Your task to perform on an android device: Open Amazon Image 0: 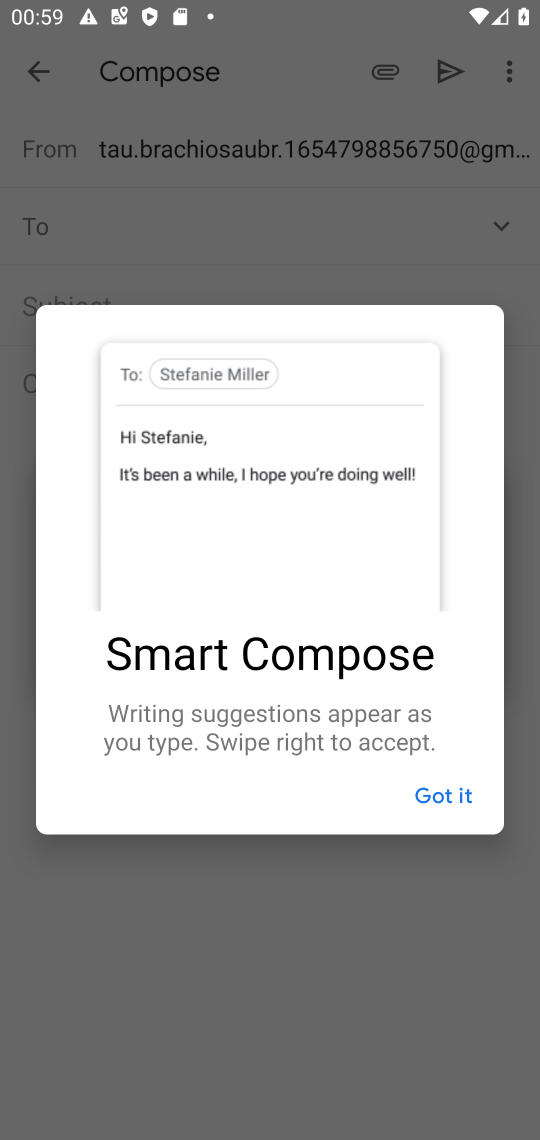
Step 0: press home button
Your task to perform on an android device: Open Amazon Image 1: 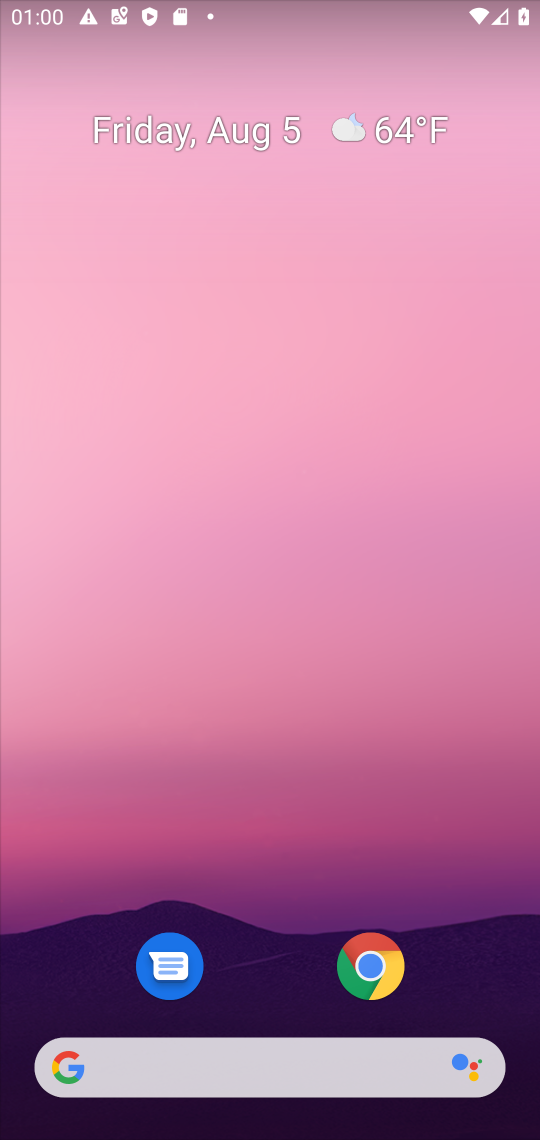
Step 1: drag from (269, 966) to (373, 41)
Your task to perform on an android device: Open Amazon Image 2: 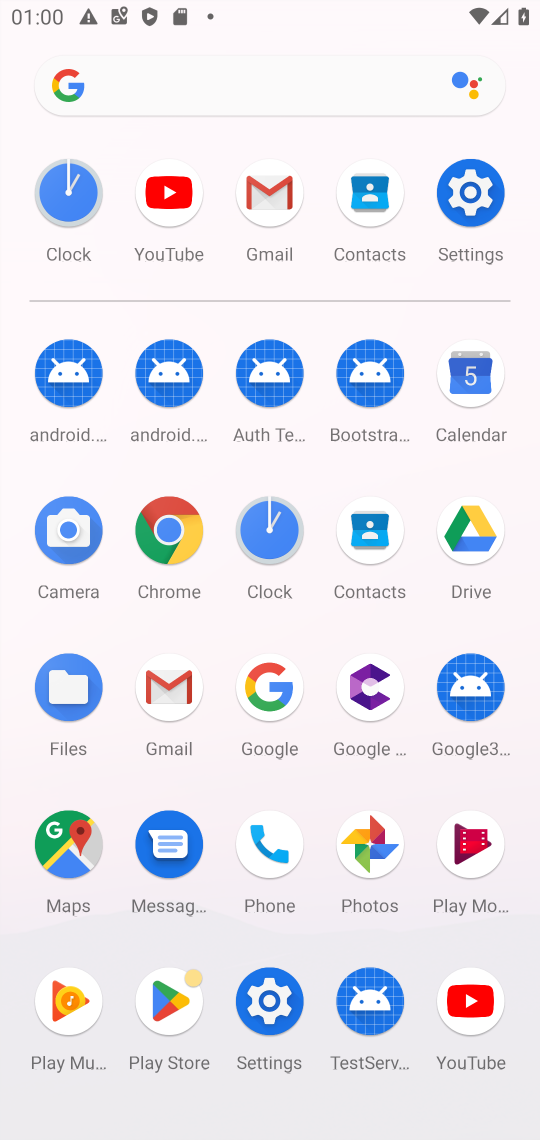
Step 2: click (176, 534)
Your task to perform on an android device: Open Amazon Image 3: 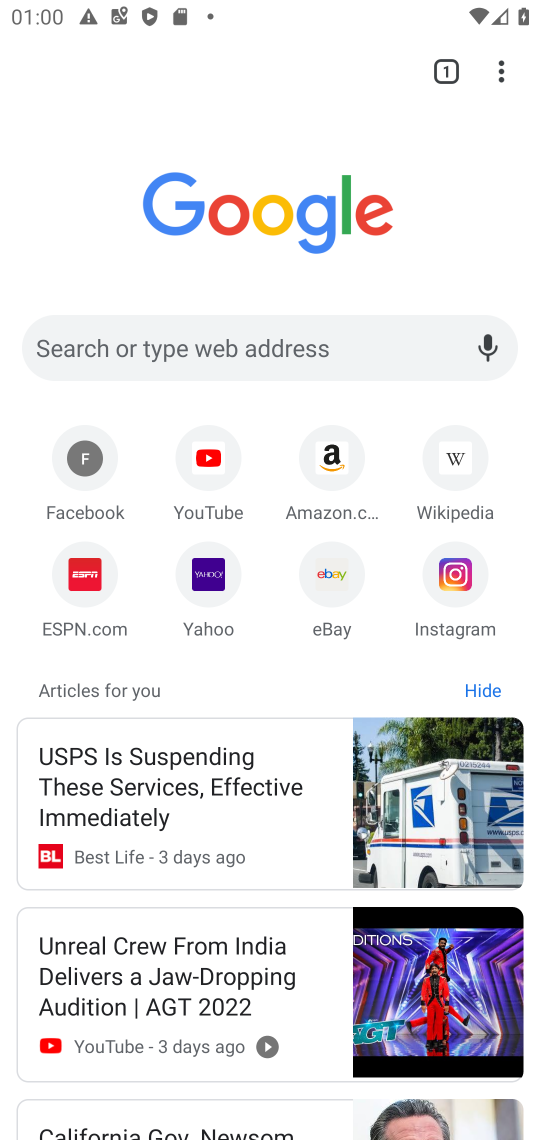
Step 3: click (337, 456)
Your task to perform on an android device: Open Amazon Image 4: 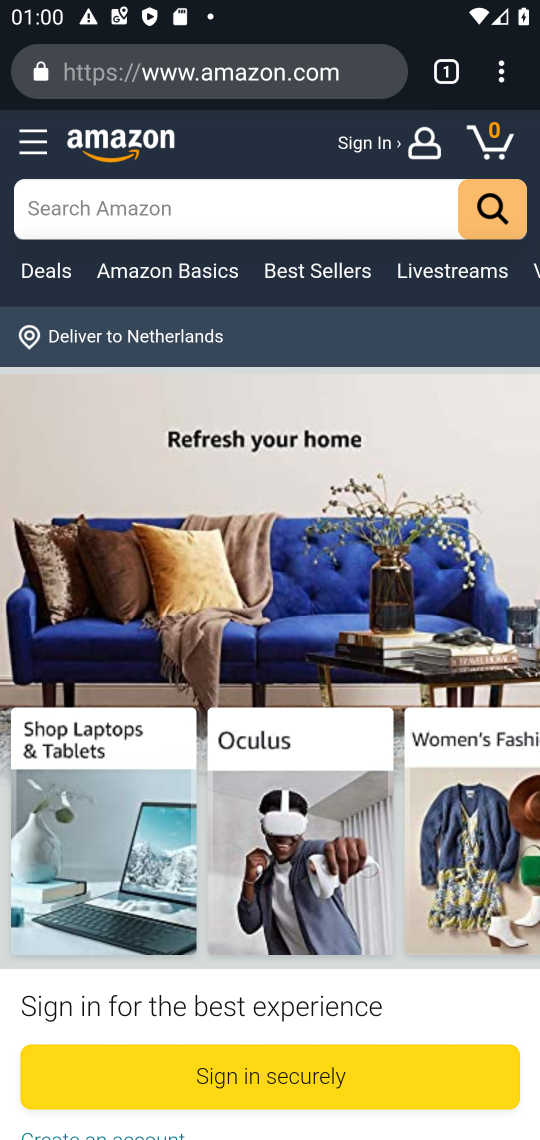
Step 4: task complete